Your task to perform on an android device: Go to settings Image 0: 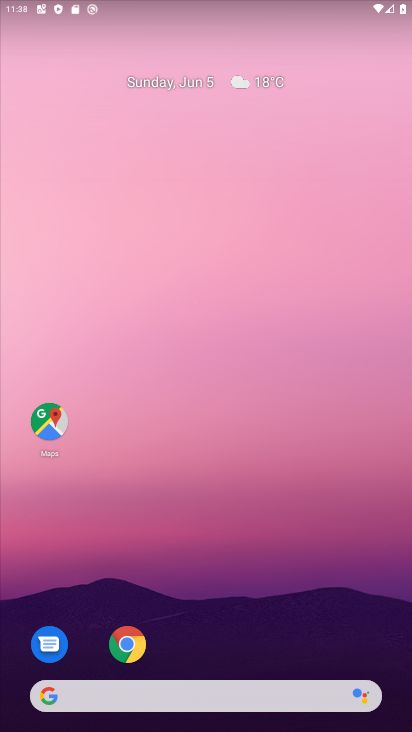
Step 0: drag from (221, 705) to (180, 291)
Your task to perform on an android device: Go to settings Image 1: 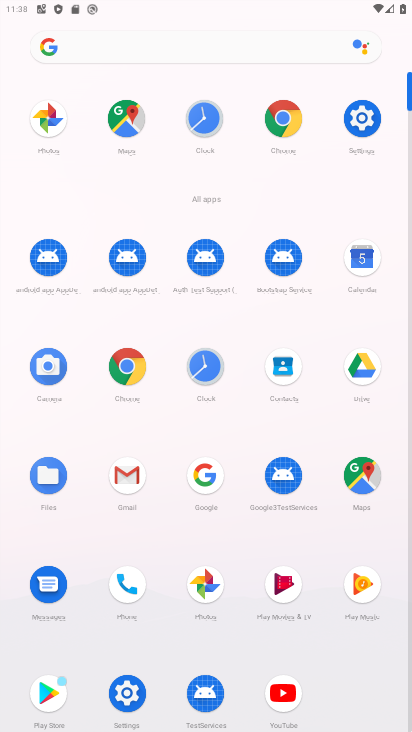
Step 1: click (359, 112)
Your task to perform on an android device: Go to settings Image 2: 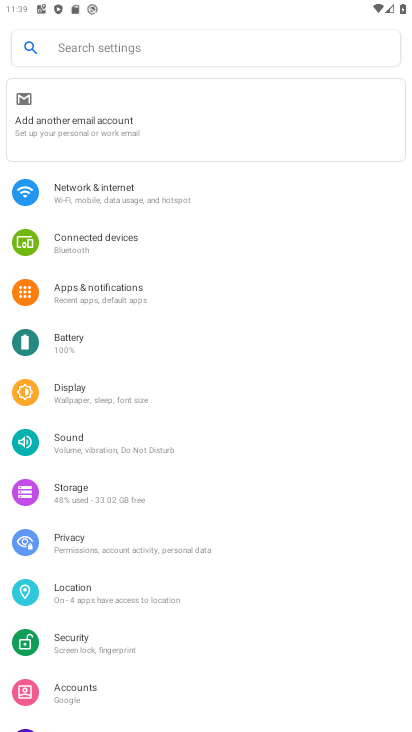
Step 2: task complete